Your task to perform on an android device: Add usb-a to usb-b to the cart on costco Image 0: 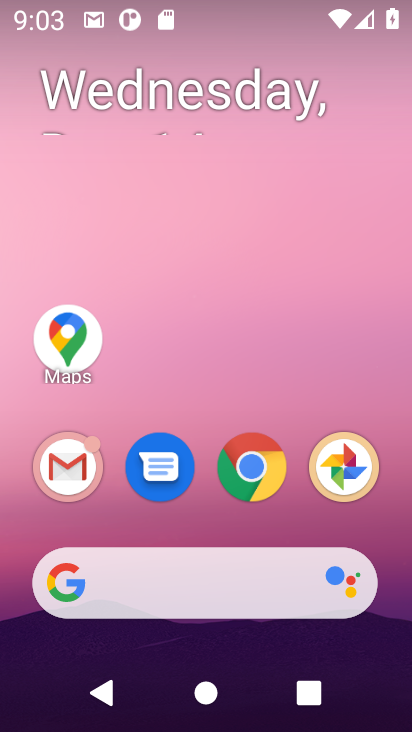
Step 0: click (238, 593)
Your task to perform on an android device: Add usb-a to usb-b to the cart on costco Image 1: 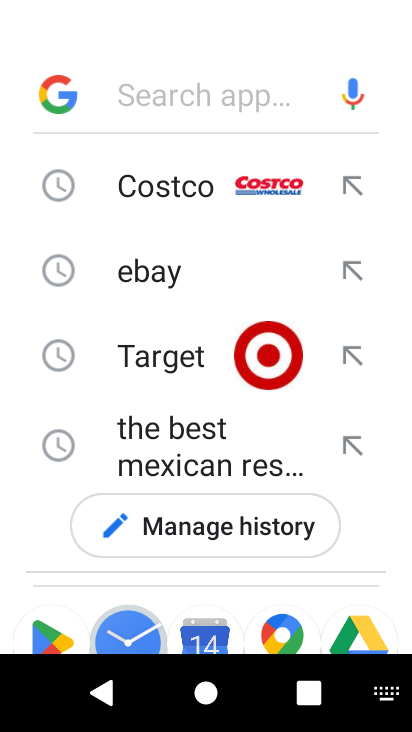
Step 1: click (196, 193)
Your task to perform on an android device: Add usb-a to usb-b to the cart on costco Image 2: 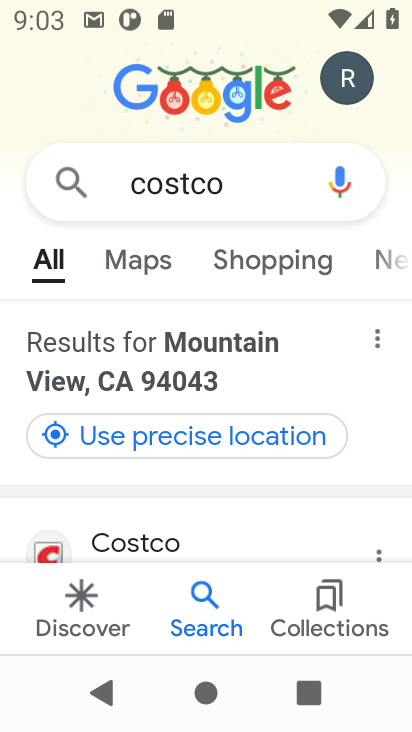
Step 2: click (115, 526)
Your task to perform on an android device: Add usb-a to usb-b to the cart on costco Image 3: 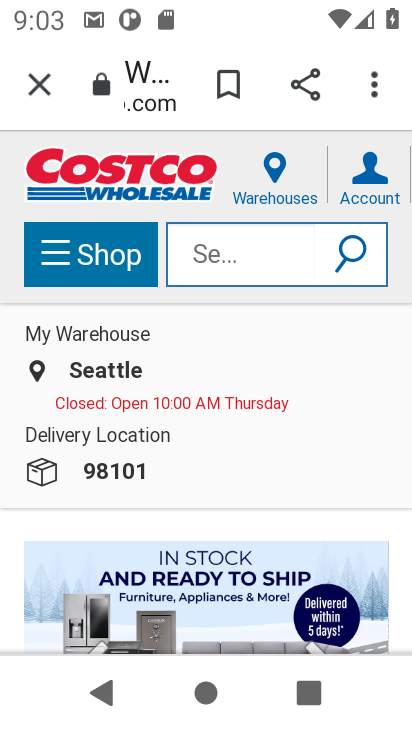
Step 3: drag from (210, 538) to (227, 199)
Your task to perform on an android device: Add usb-a to usb-b to the cart on costco Image 4: 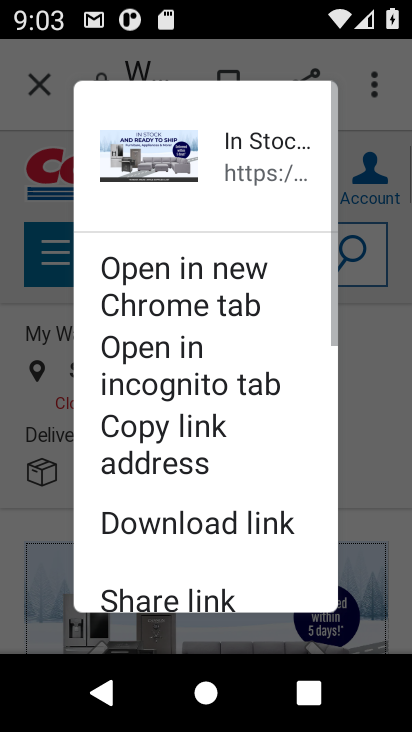
Step 4: click (395, 393)
Your task to perform on an android device: Add usb-a to usb-b to the cart on costco Image 5: 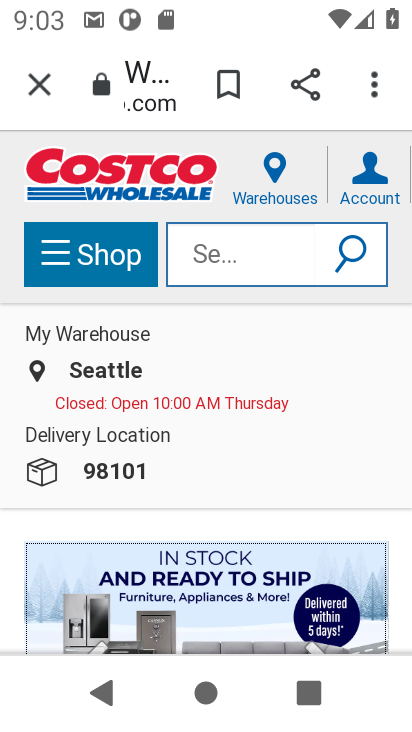
Step 5: task complete